Your task to perform on an android device: Open Youtube and go to the subscriptions tab Image 0: 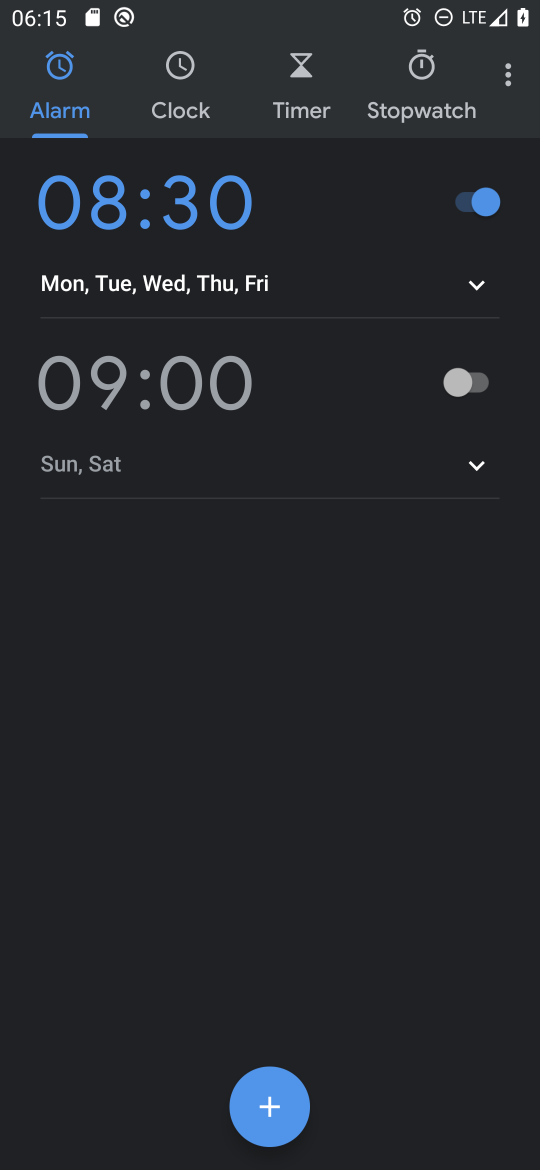
Step 0: press home button
Your task to perform on an android device: Open Youtube and go to the subscriptions tab Image 1: 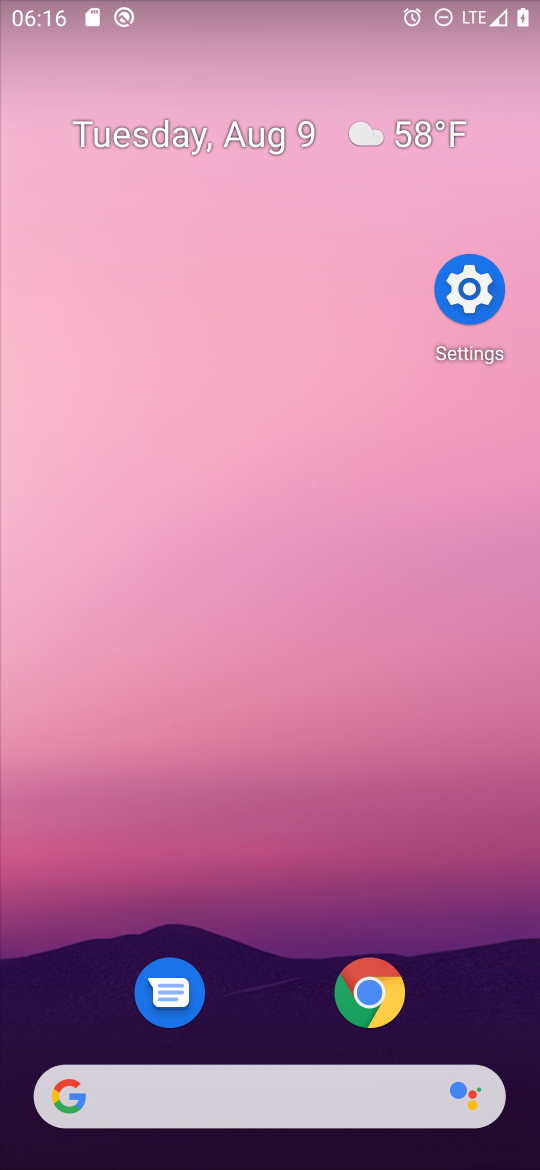
Step 1: click (156, 1086)
Your task to perform on an android device: Open Youtube and go to the subscriptions tab Image 2: 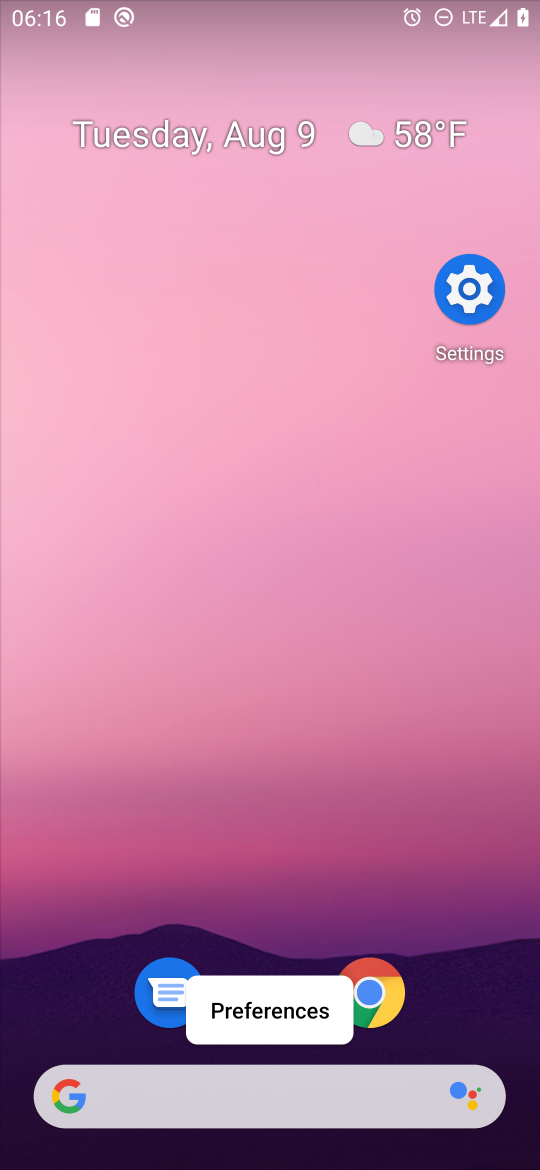
Step 2: drag from (253, 1084) to (209, 571)
Your task to perform on an android device: Open Youtube and go to the subscriptions tab Image 3: 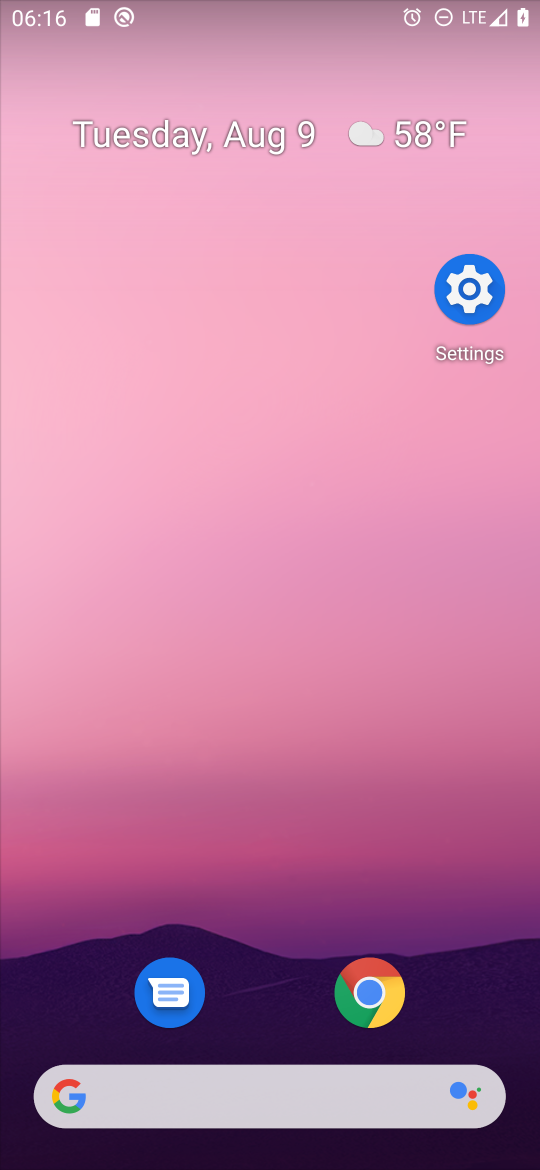
Step 3: drag from (408, 1090) to (333, 6)
Your task to perform on an android device: Open Youtube and go to the subscriptions tab Image 4: 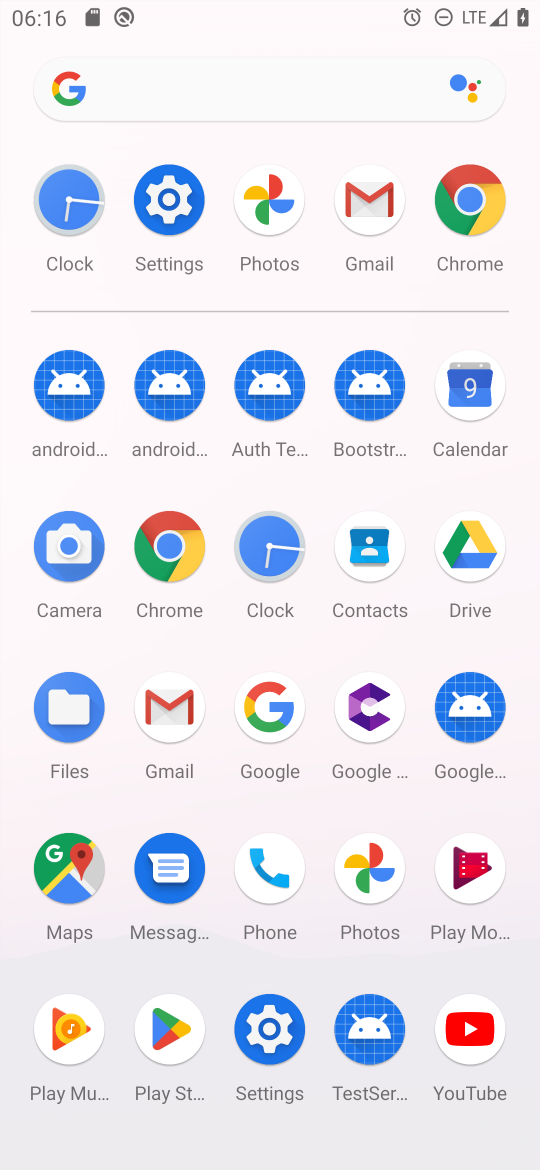
Step 4: click (472, 1023)
Your task to perform on an android device: Open Youtube and go to the subscriptions tab Image 5: 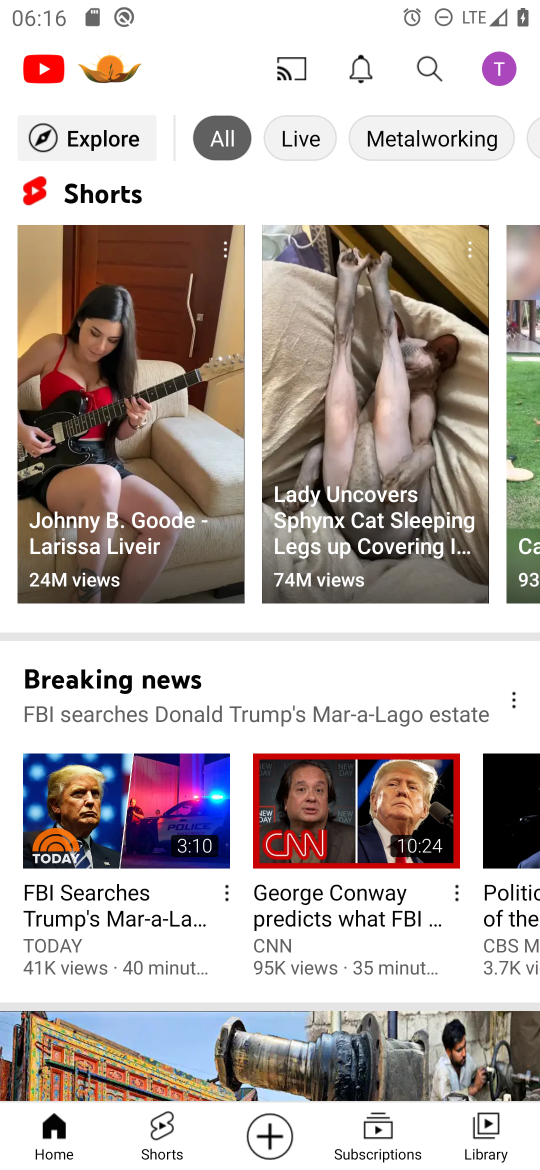
Step 5: click (378, 1121)
Your task to perform on an android device: Open Youtube and go to the subscriptions tab Image 6: 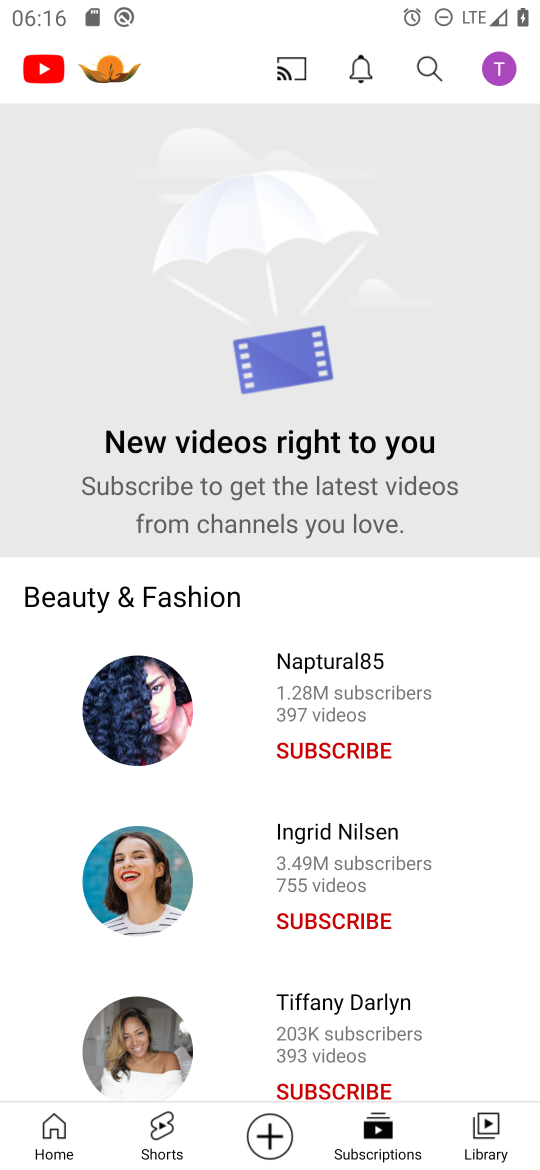
Step 6: task complete